Your task to perform on an android device: turn on wifi Image 0: 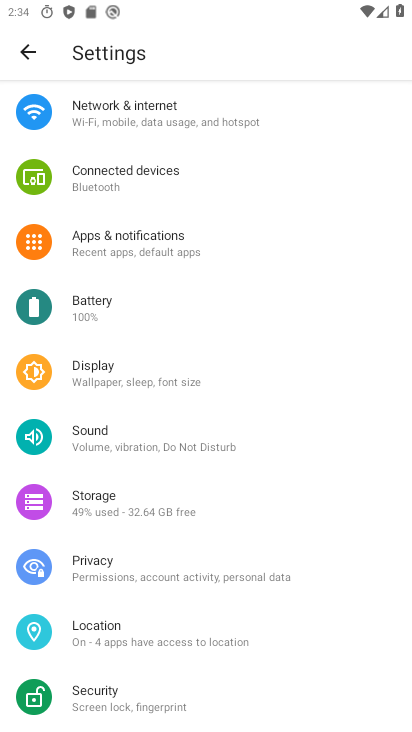
Step 0: drag from (198, 173) to (232, 623)
Your task to perform on an android device: turn on wifi Image 1: 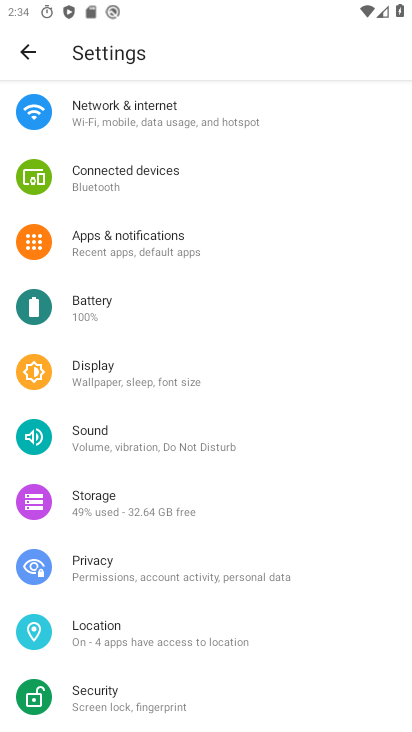
Step 1: click (233, 117)
Your task to perform on an android device: turn on wifi Image 2: 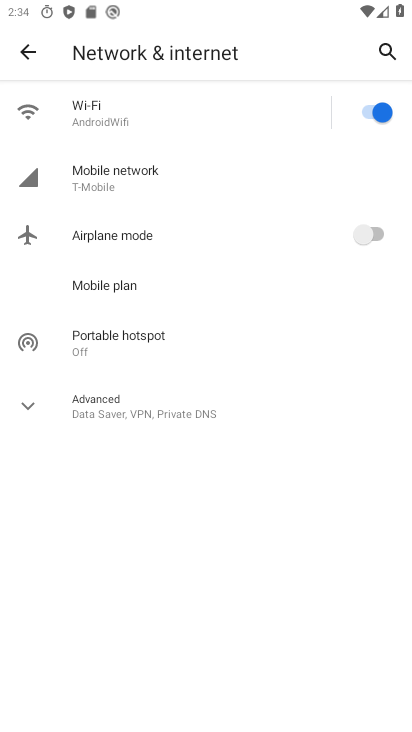
Step 2: task complete